Your task to perform on an android device: Look up the top rated headphones on Amazon. Image 0: 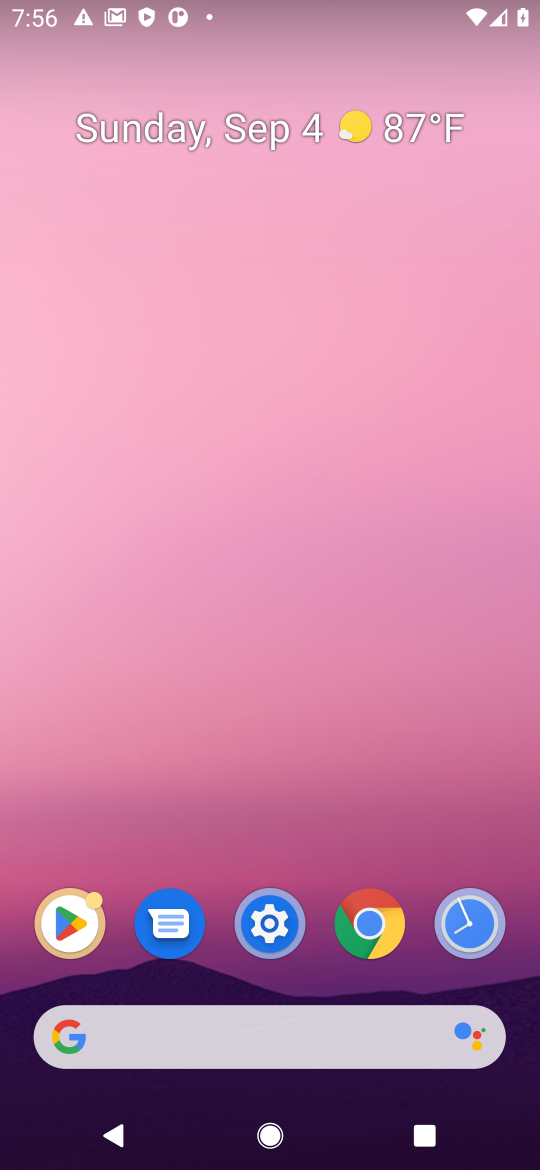
Step 0: press home button
Your task to perform on an android device: Look up the top rated headphones on Amazon. Image 1: 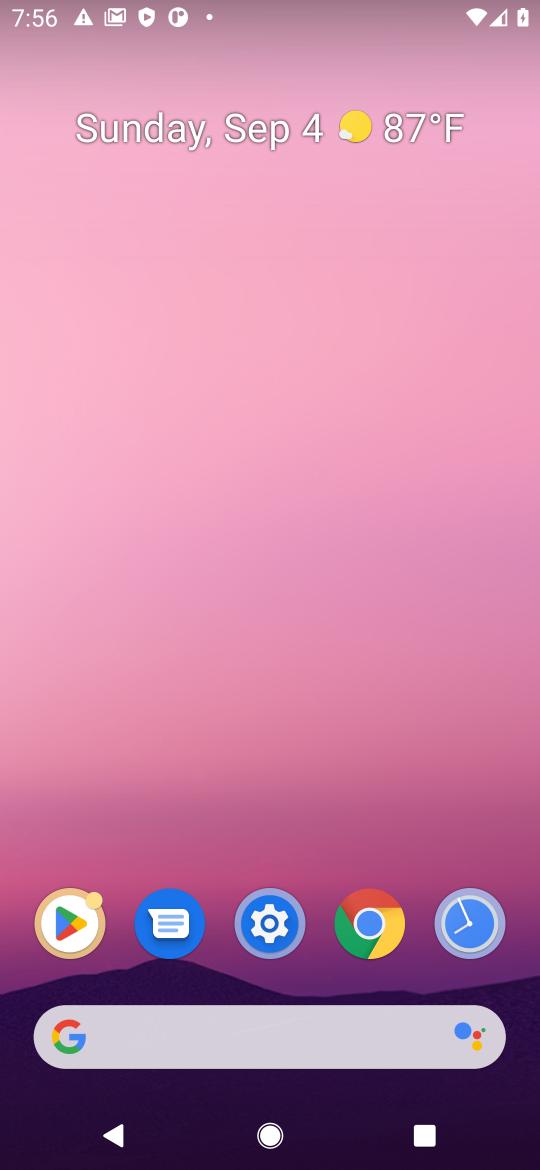
Step 1: click (393, 1046)
Your task to perform on an android device: Look up the top rated headphones on Amazon. Image 2: 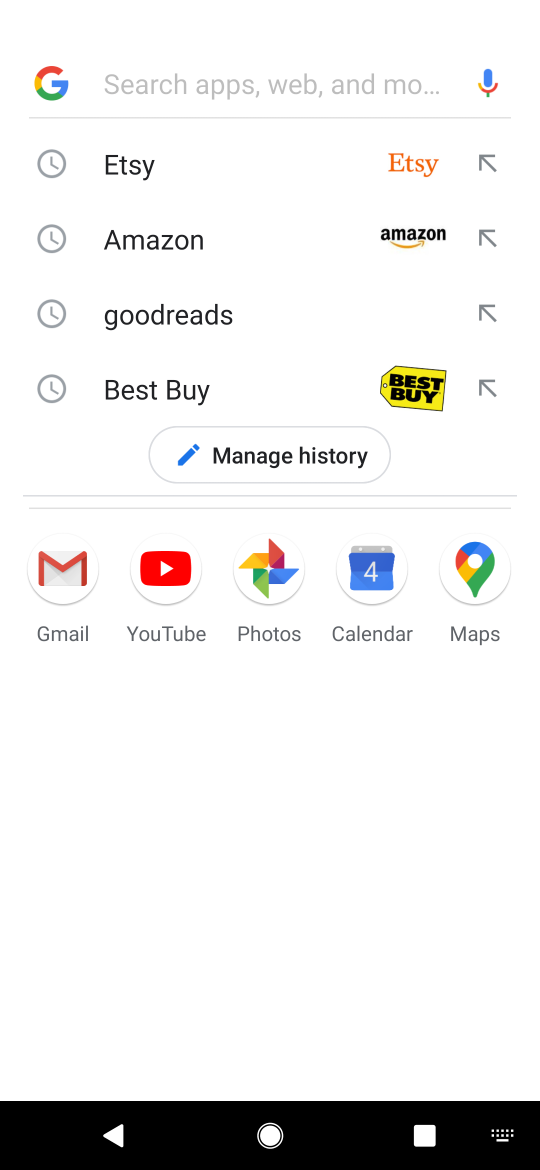
Step 2: press enter
Your task to perform on an android device: Look up the top rated headphones on Amazon. Image 3: 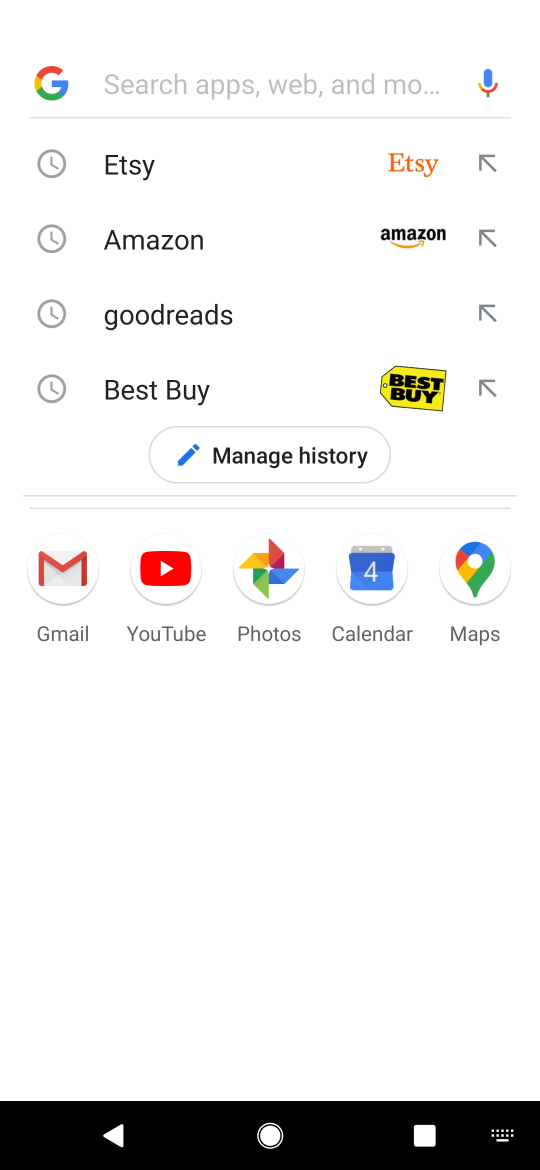
Step 3: type "amazon"
Your task to perform on an android device: Look up the top rated headphones on Amazon. Image 4: 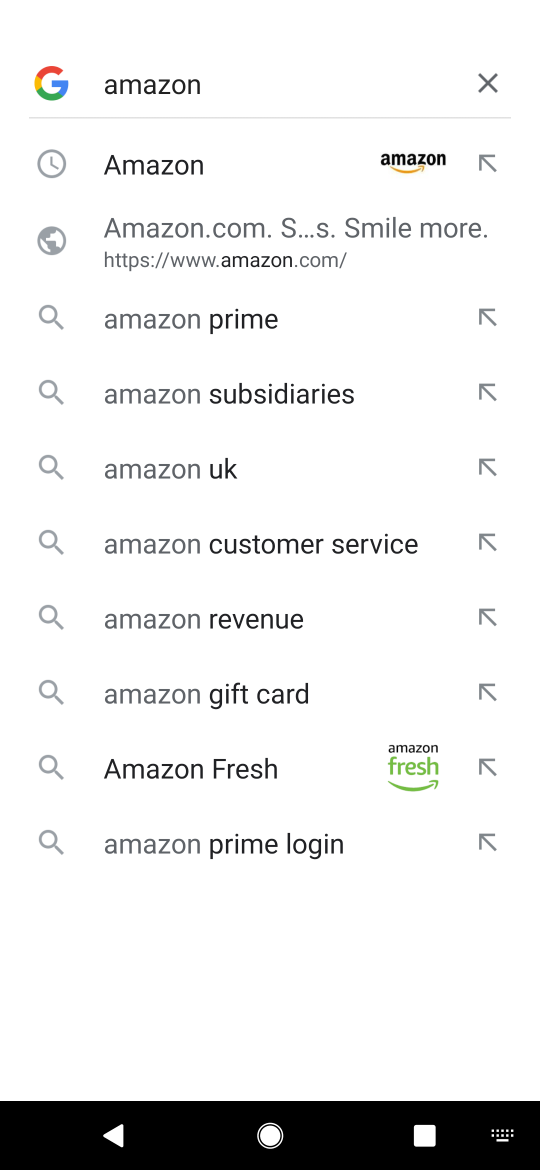
Step 4: click (250, 167)
Your task to perform on an android device: Look up the top rated headphones on Amazon. Image 5: 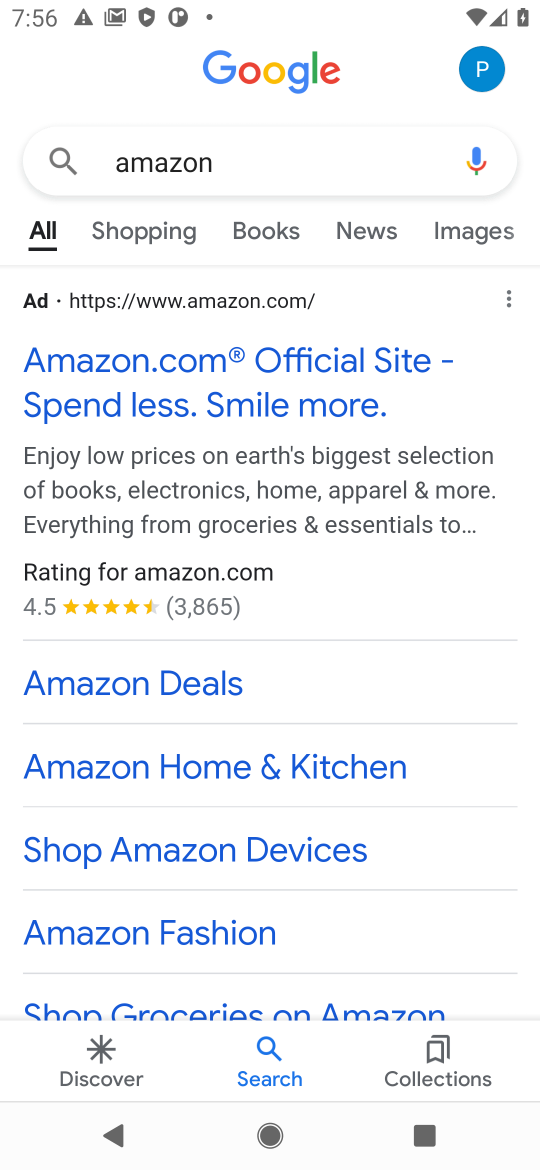
Step 5: click (246, 409)
Your task to perform on an android device: Look up the top rated headphones on Amazon. Image 6: 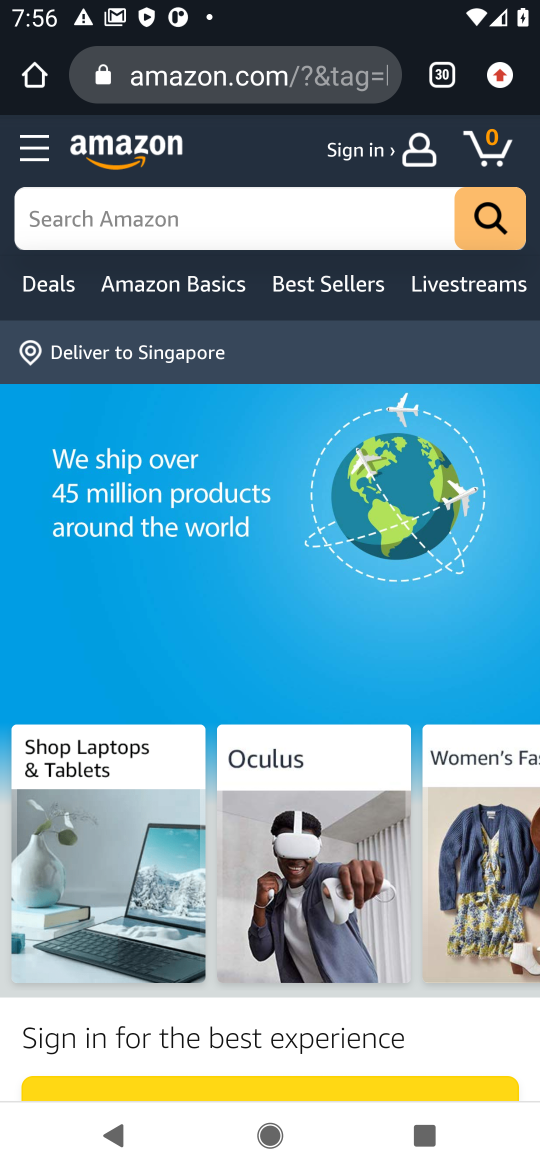
Step 6: click (286, 208)
Your task to perform on an android device: Look up the top rated headphones on Amazon. Image 7: 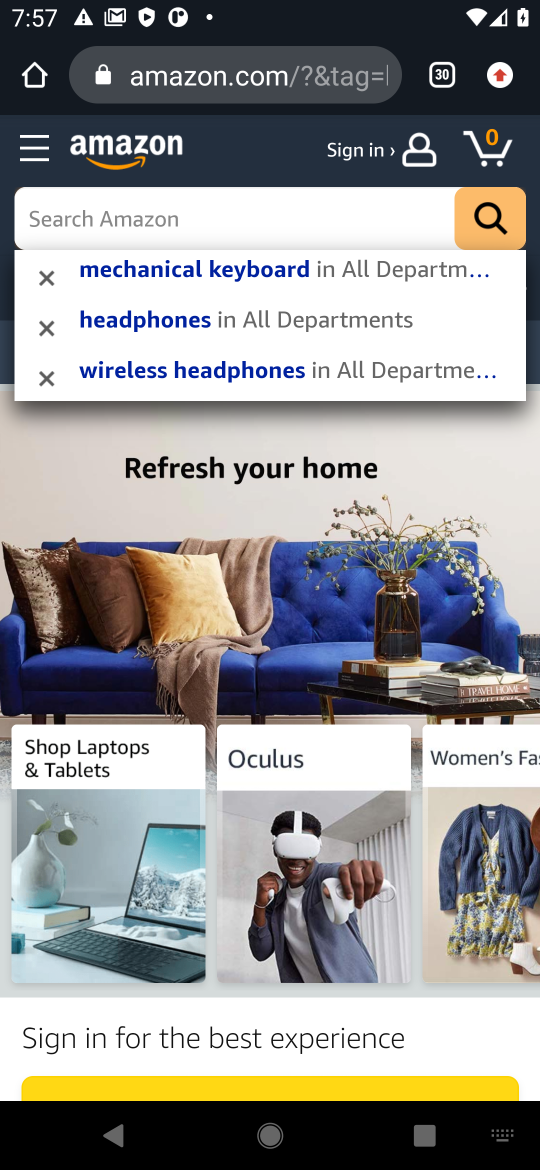
Step 7: type "headphoness"
Your task to perform on an android device: Look up the top rated headphones on Amazon. Image 8: 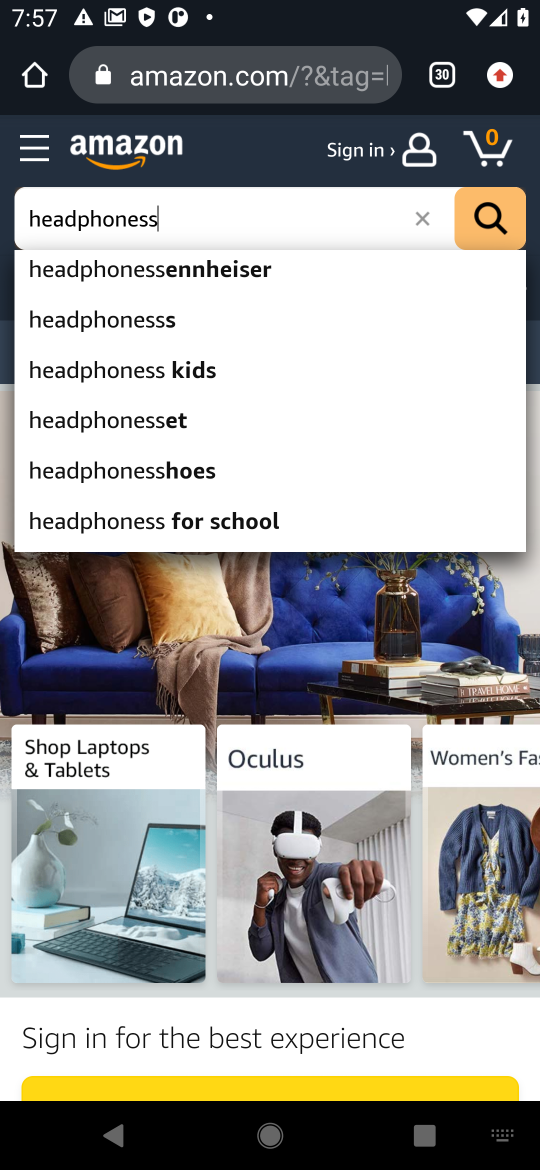
Step 8: click (153, 330)
Your task to perform on an android device: Look up the top rated headphones on Amazon. Image 9: 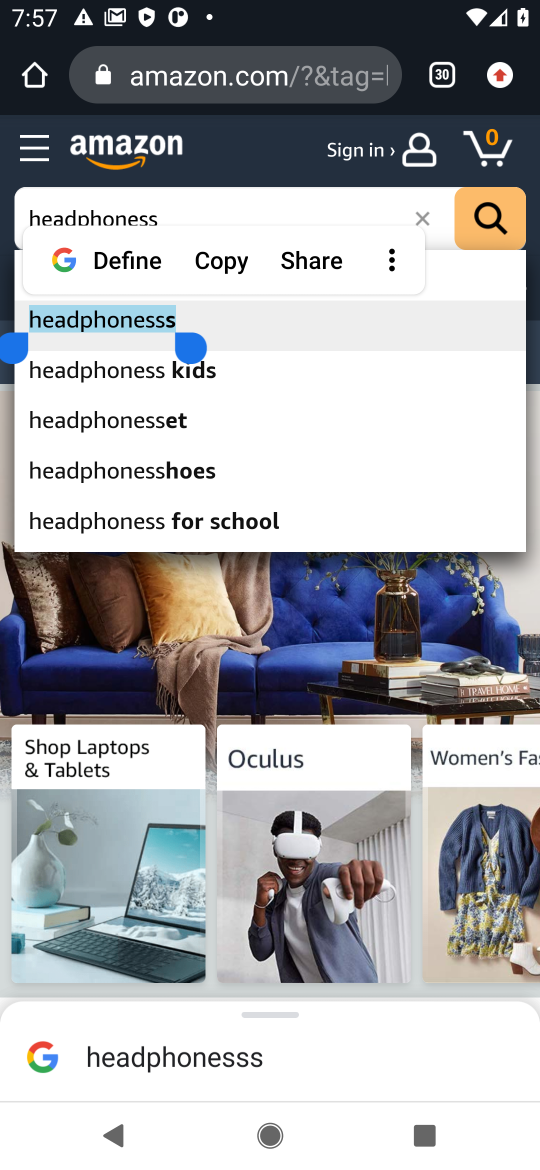
Step 9: click (153, 330)
Your task to perform on an android device: Look up the top rated headphones on Amazon. Image 10: 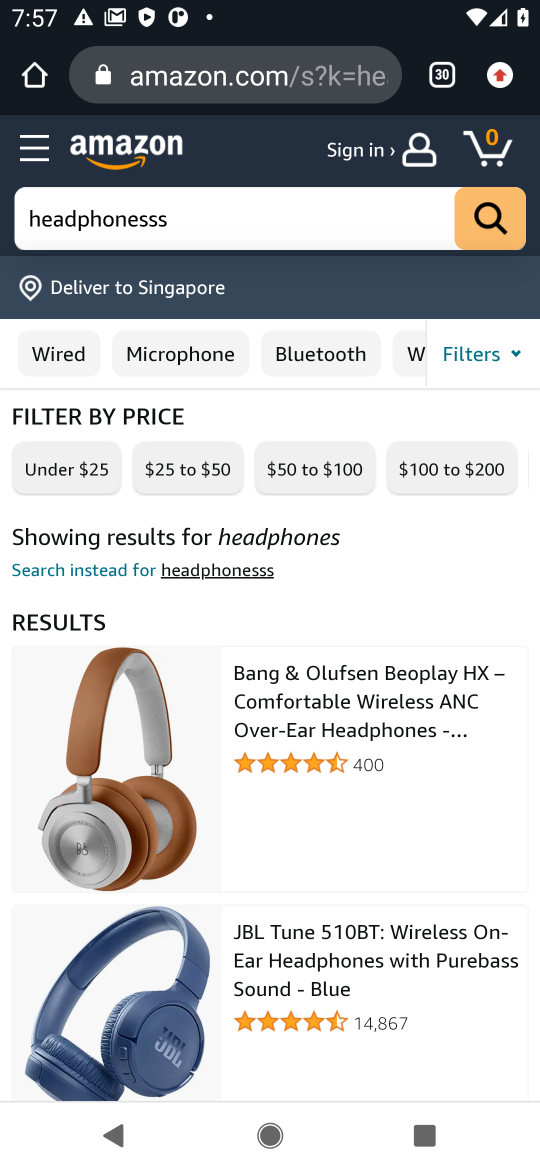
Step 10: task complete